Your task to perform on an android device: toggle sleep mode Image 0: 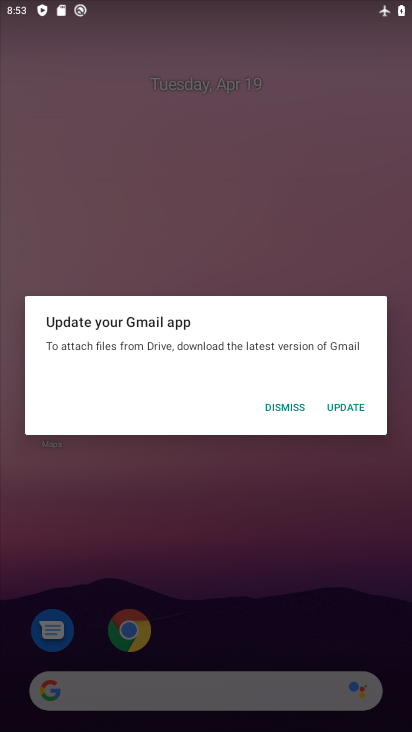
Step 0: click (289, 410)
Your task to perform on an android device: toggle sleep mode Image 1: 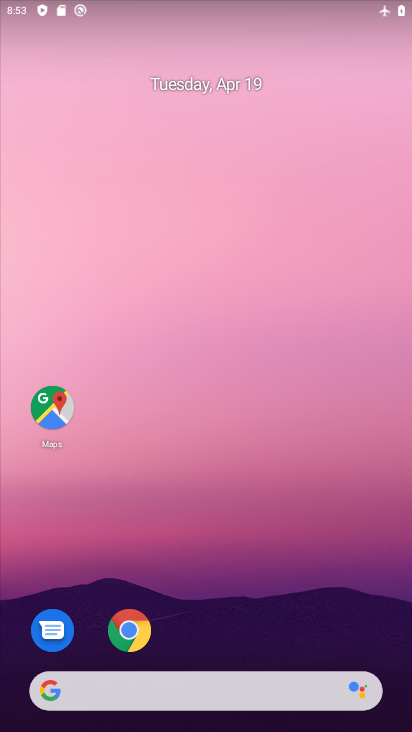
Step 1: drag from (214, 528) to (214, 54)
Your task to perform on an android device: toggle sleep mode Image 2: 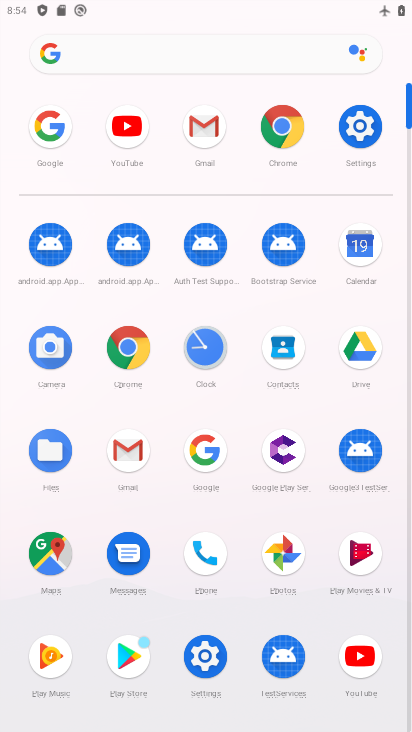
Step 2: click (355, 123)
Your task to perform on an android device: toggle sleep mode Image 3: 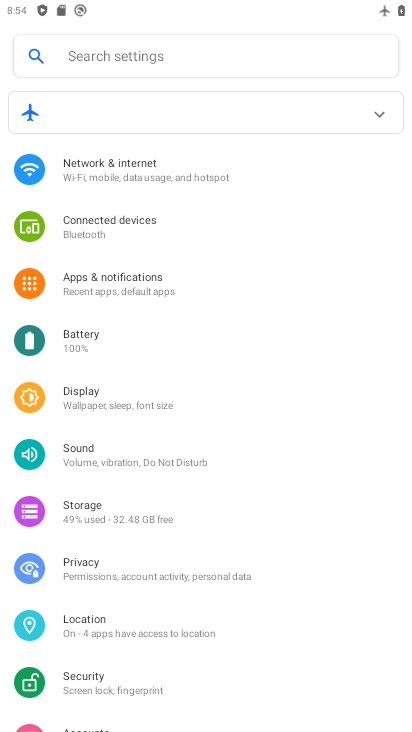
Step 3: click (176, 399)
Your task to perform on an android device: toggle sleep mode Image 4: 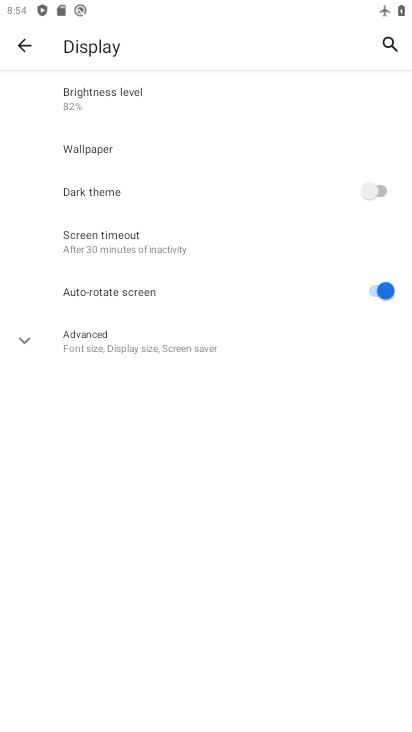
Step 4: click (209, 344)
Your task to perform on an android device: toggle sleep mode Image 5: 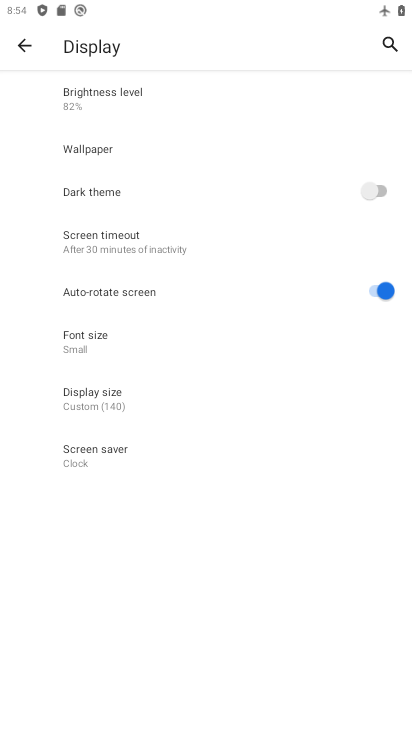
Step 5: task complete